Your task to perform on an android device: Open the calendar and show me this week's events Image 0: 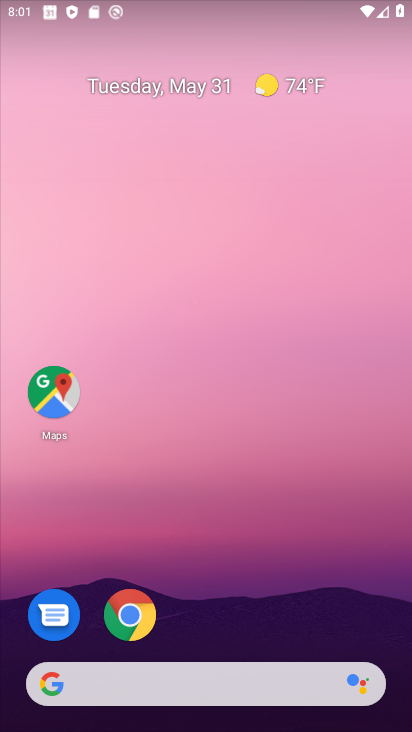
Step 0: drag from (241, 631) to (223, 166)
Your task to perform on an android device: Open the calendar and show me this week's events Image 1: 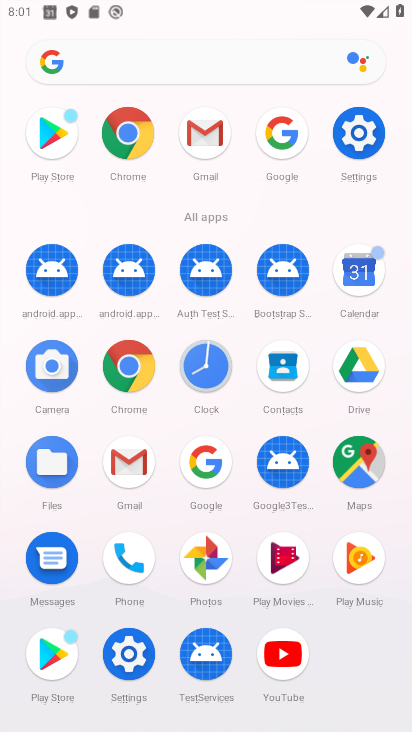
Step 1: click (354, 273)
Your task to perform on an android device: Open the calendar and show me this week's events Image 2: 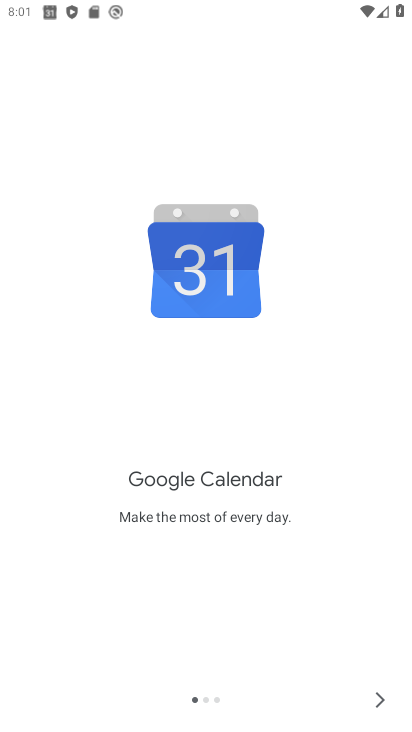
Step 2: click (369, 693)
Your task to perform on an android device: Open the calendar and show me this week's events Image 3: 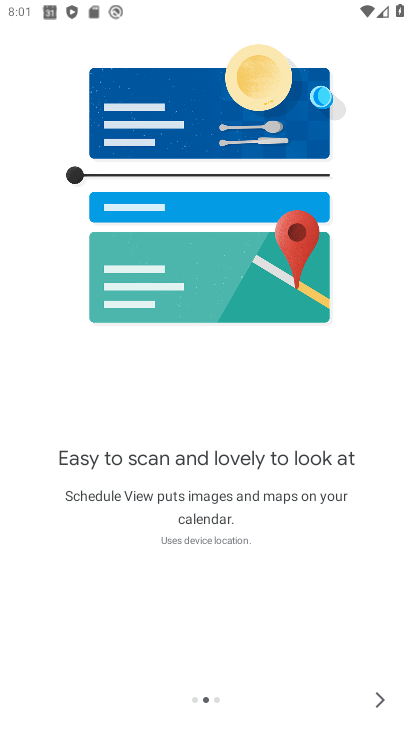
Step 3: click (369, 693)
Your task to perform on an android device: Open the calendar and show me this week's events Image 4: 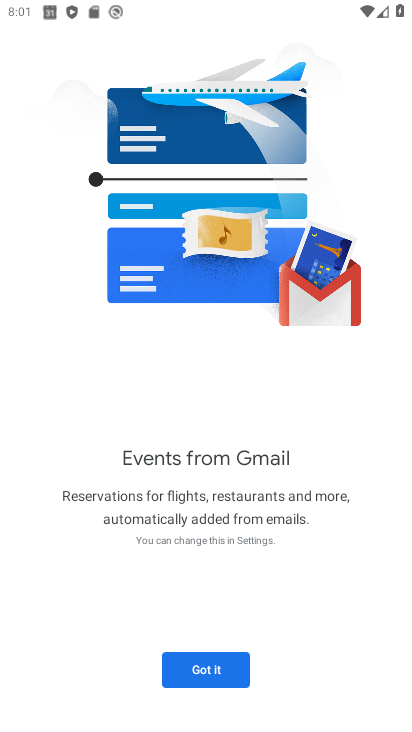
Step 4: click (214, 651)
Your task to perform on an android device: Open the calendar and show me this week's events Image 5: 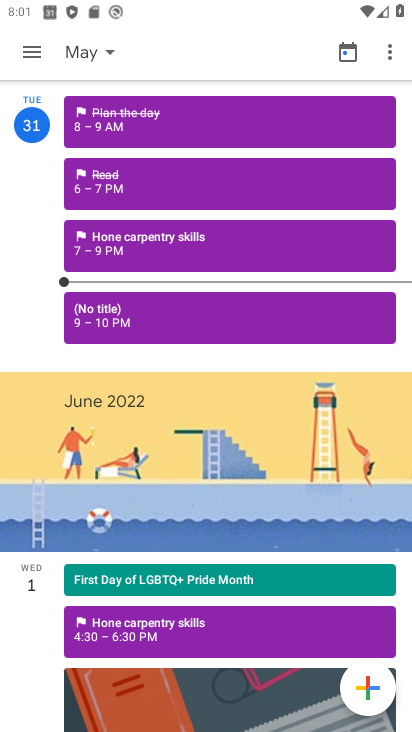
Step 5: click (106, 41)
Your task to perform on an android device: Open the calendar and show me this week's events Image 6: 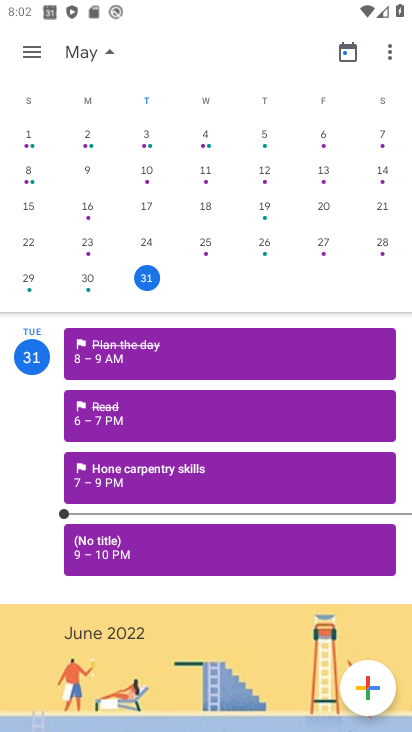
Step 6: task complete